Your task to perform on an android device: see creations saved in the google photos Image 0: 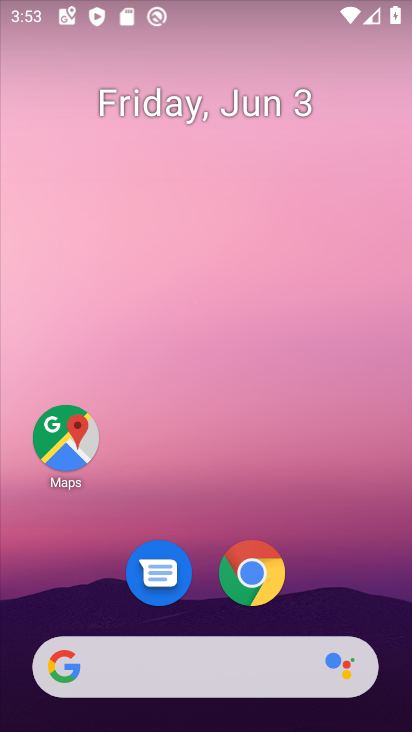
Step 0: drag from (396, 715) to (359, 251)
Your task to perform on an android device: see creations saved in the google photos Image 1: 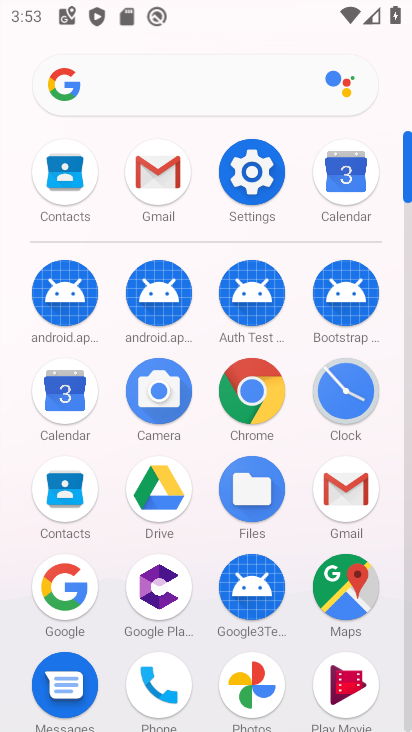
Step 1: click (252, 683)
Your task to perform on an android device: see creations saved in the google photos Image 2: 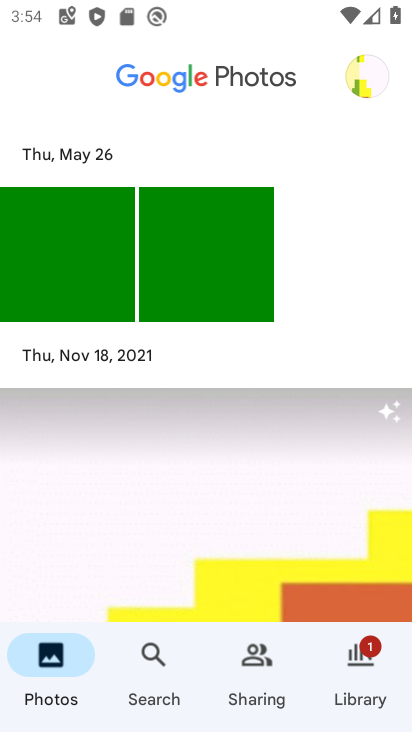
Step 2: drag from (141, 524) to (168, 190)
Your task to perform on an android device: see creations saved in the google photos Image 3: 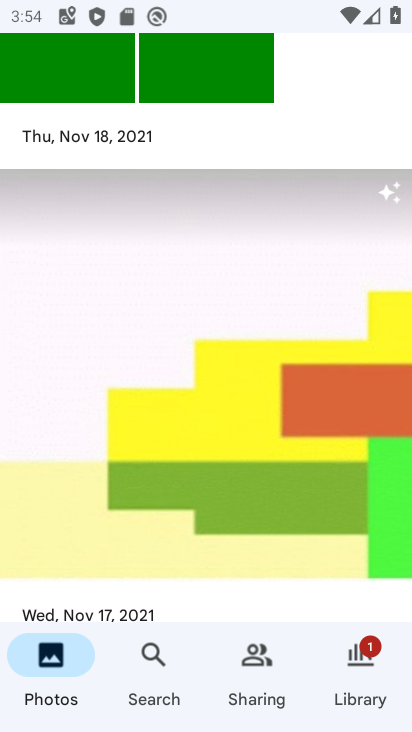
Step 3: drag from (189, 570) to (220, 292)
Your task to perform on an android device: see creations saved in the google photos Image 4: 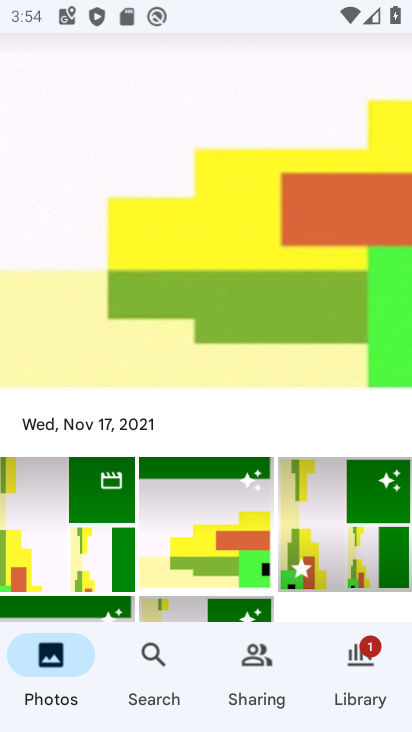
Step 4: click (204, 490)
Your task to perform on an android device: see creations saved in the google photos Image 5: 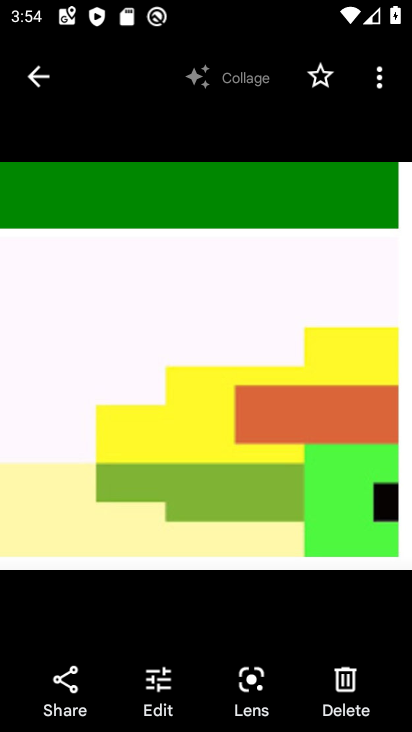
Step 5: click (35, 86)
Your task to perform on an android device: see creations saved in the google photos Image 6: 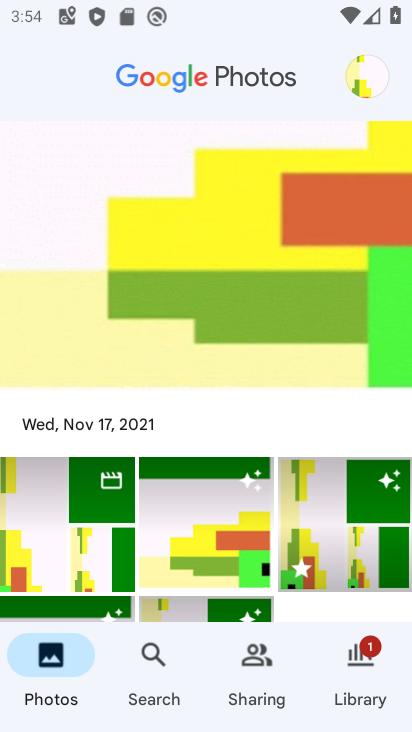
Step 6: click (332, 538)
Your task to perform on an android device: see creations saved in the google photos Image 7: 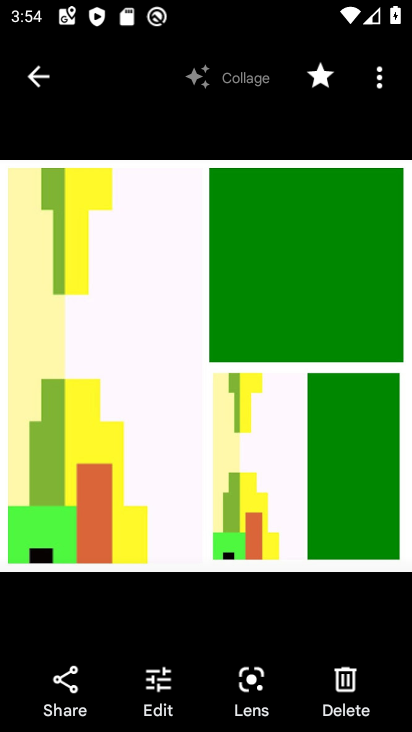
Step 7: click (27, 75)
Your task to perform on an android device: see creations saved in the google photos Image 8: 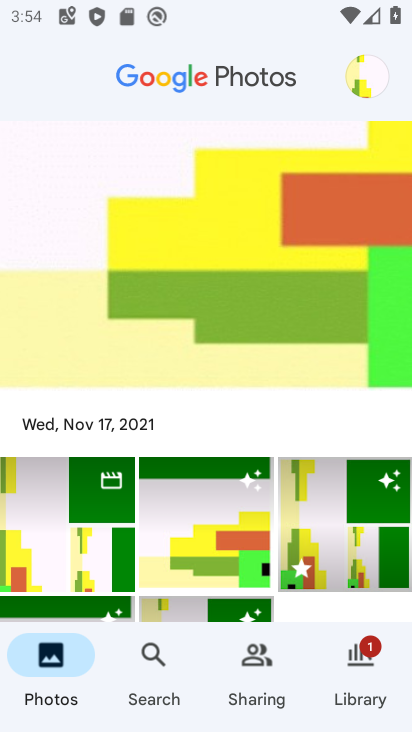
Step 8: task complete